Your task to perform on an android device: Open calendar and show me the second week of next month Image 0: 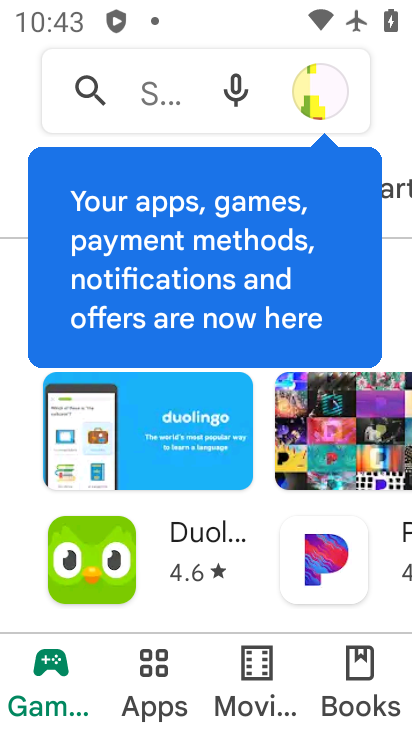
Step 0: press back button
Your task to perform on an android device: Open calendar and show me the second week of next month Image 1: 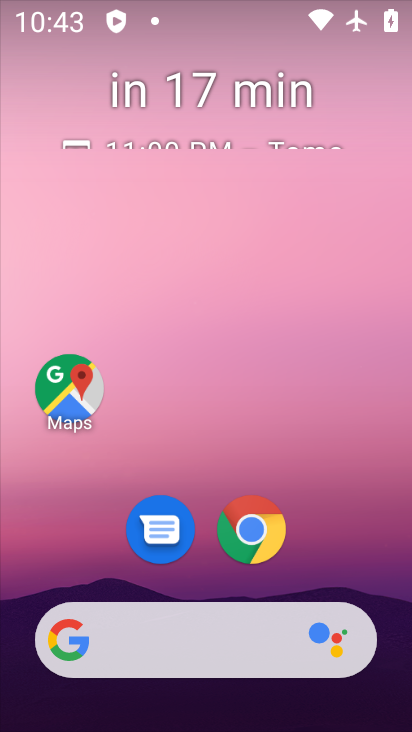
Step 1: drag from (340, 614) to (215, 278)
Your task to perform on an android device: Open calendar and show me the second week of next month Image 2: 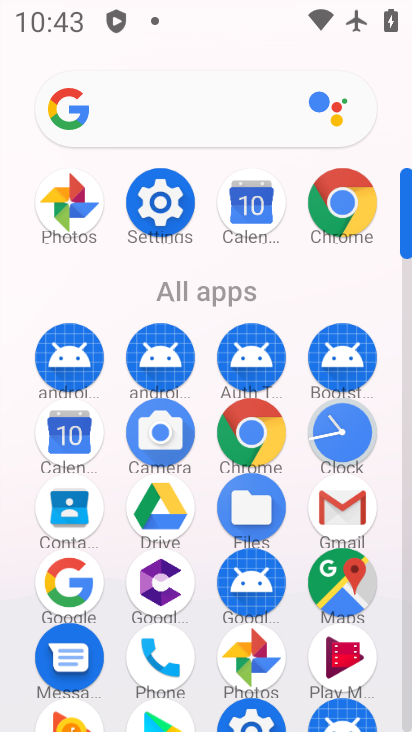
Step 2: click (63, 431)
Your task to perform on an android device: Open calendar and show me the second week of next month Image 3: 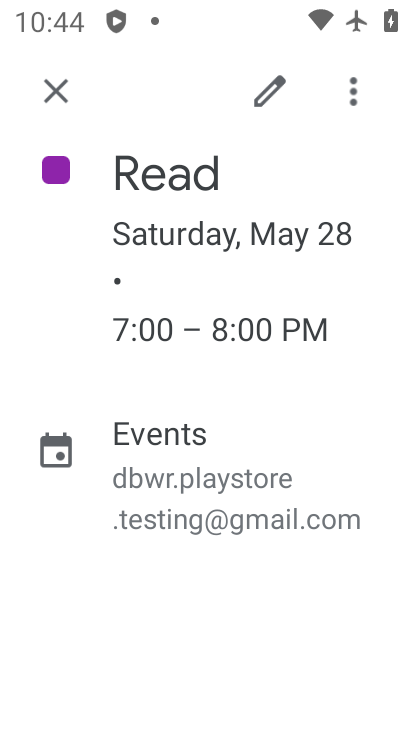
Step 3: click (55, 81)
Your task to perform on an android device: Open calendar and show me the second week of next month Image 4: 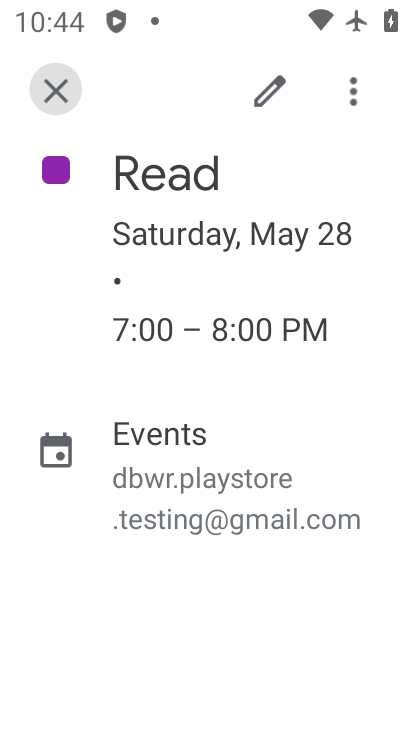
Step 4: click (53, 90)
Your task to perform on an android device: Open calendar and show me the second week of next month Image 5: 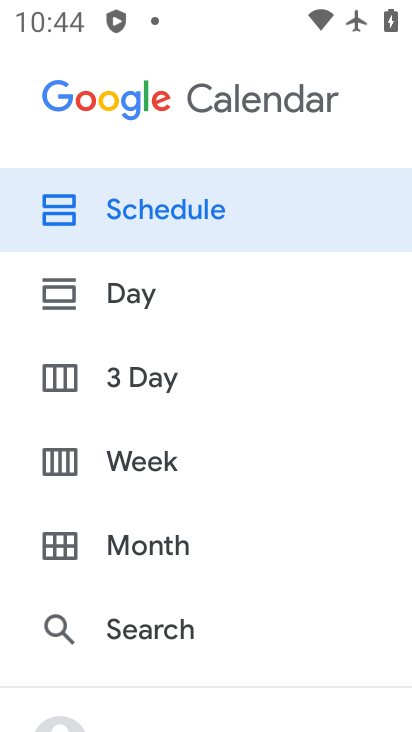
Step 5: click (156, 218)
Your task to perform on an android device: Open calendar and show me the second week of next month Image 6: 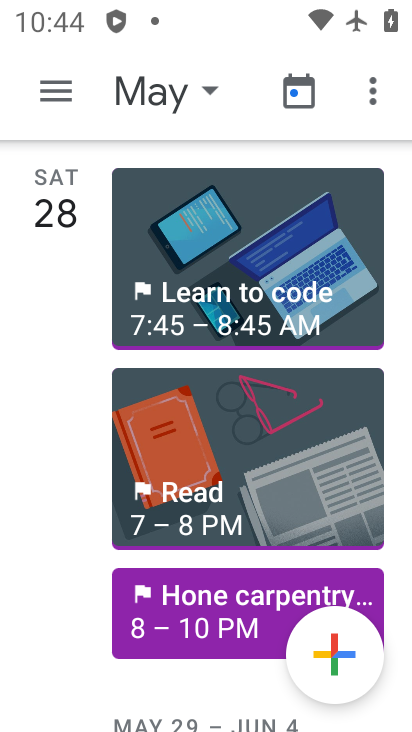
Step 6: click (202, 86)
Your task to perform on an android device: Open calendar and show me the second week of next month Image 7: 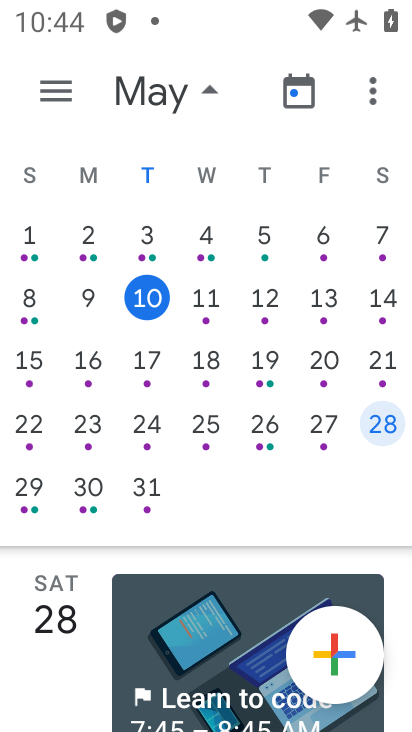
Step 7: drag from (316, 373) to (0, 274)
Your task to perform on an android device: Open calendar and show me the second week of next month Image 8: 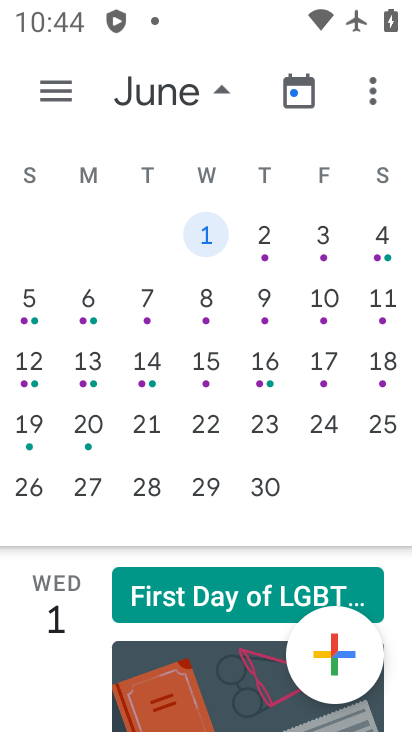
Step 8: click (213, 295)
Your task to perform on an android device: Open calendar and show me the second week of next month Image 9: 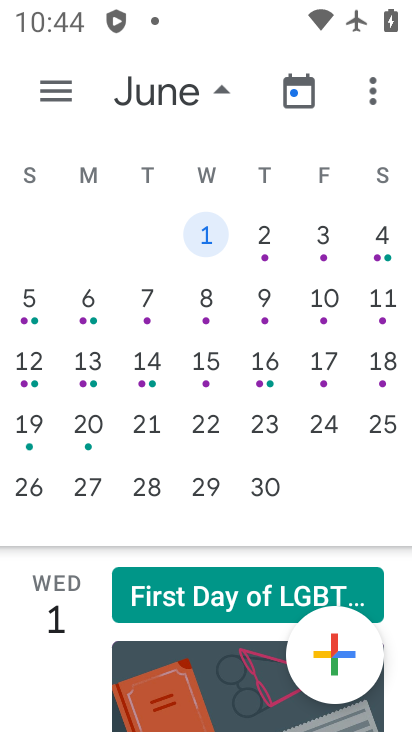
Step 9: click (206, 300)
Your task to perform on an android device: Open calendar and show me the second week of next month Image 10: 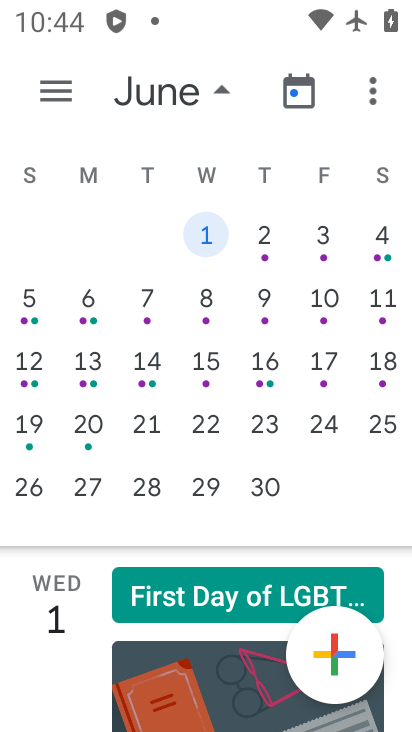
Step 10: click (206, 300)
Your task to perform on an android device: Open calendar and show me the second week of next month Image 11: 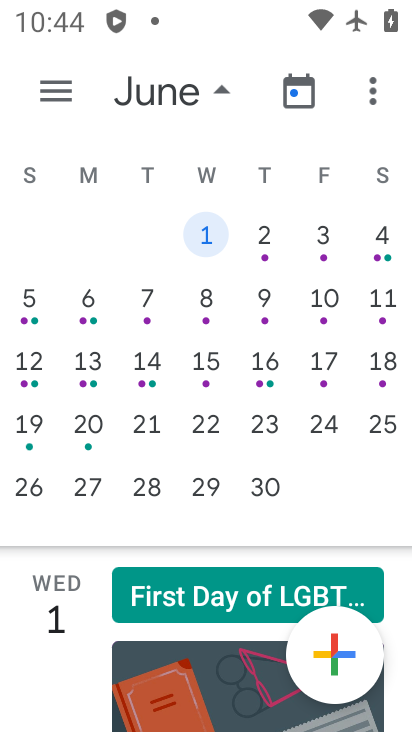
Step 11: click (206, 300)
Your task to perform on an android device: Open calendar and show me the second week of next month Image 12: 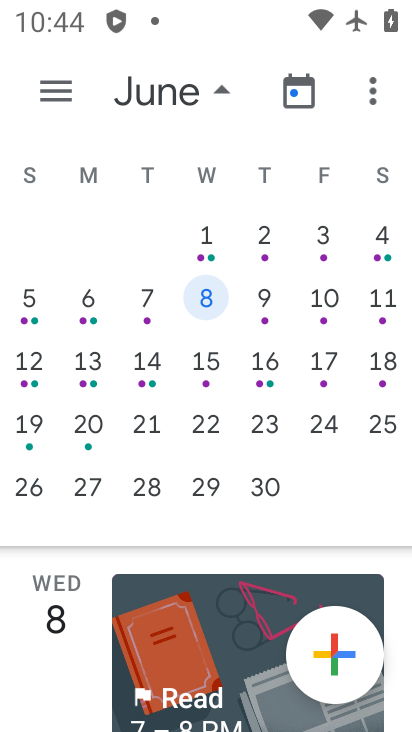
Step 12: click (207, 299)
Your task to perform on an android device: Open calendar and show me the second week of next month Image 13: 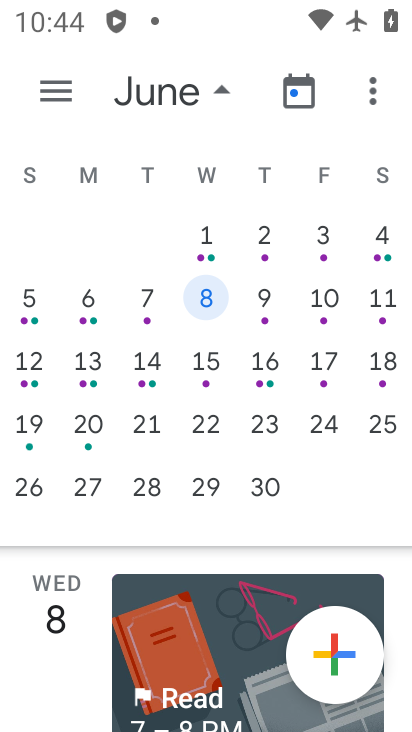
Step 13: click (207, 299)
Your task to perform on an android device: Open calendar and show me the second week of next month Image 14: 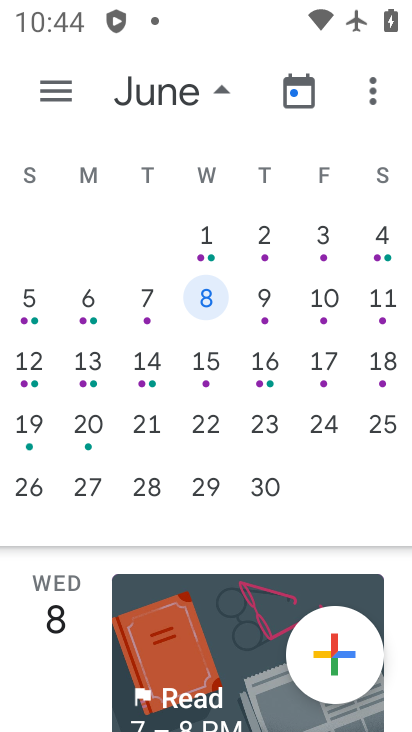
Step 14: click (206, 289)
Your task to perform on an android device: Open calendar and show me the second week of next month Image 15: 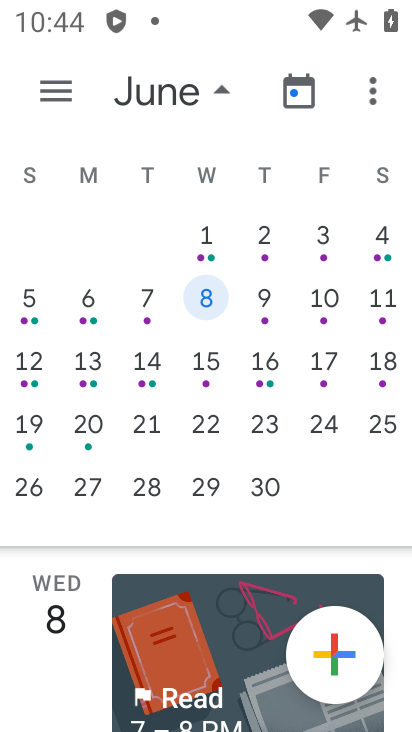
Step 15: task complete